Your task to perform on an android device: open app "Microsoft Excel" (install if not already installed) Image 0: 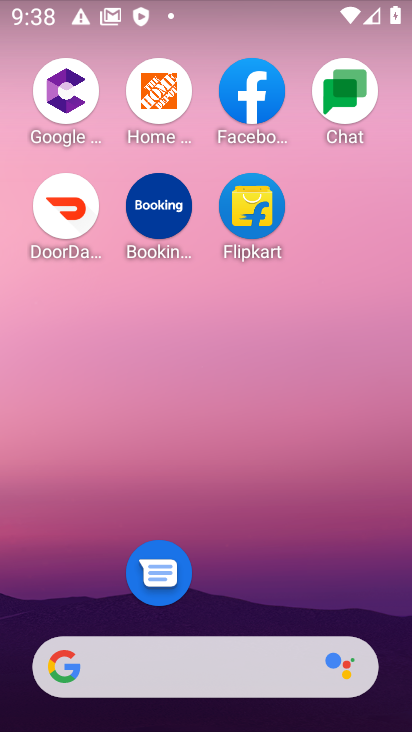
Step 0: drag from (262, 635) to (259, 0)
Your task to perform on an android device: open app "Microsoft Excel" (install if not already installed) Image 1: 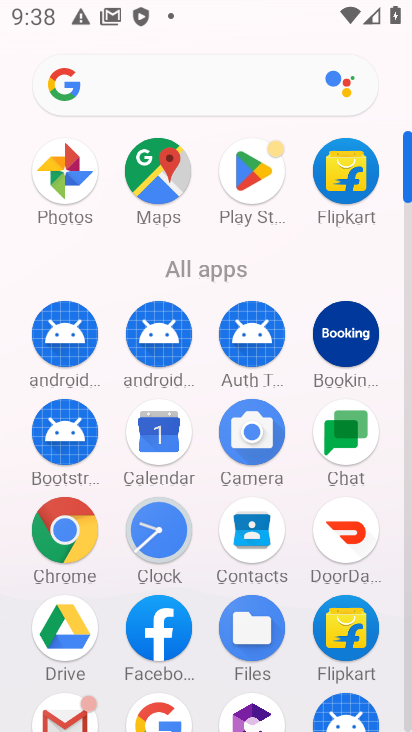
Step 1: click (244, 183)
Your task to perform on an android device: open app "Microsoft Excel" (install if not already installed) Image 2: 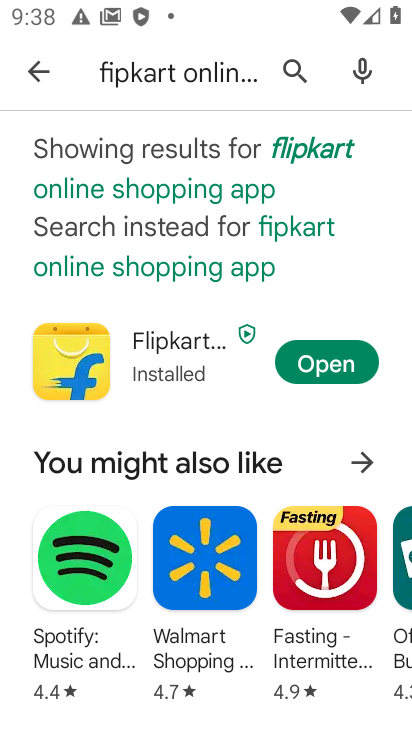
Step 2: click (295, 70)
Your task to perform on an android device: open app "Microsoft Excel" (install if not already installed) Image 3: 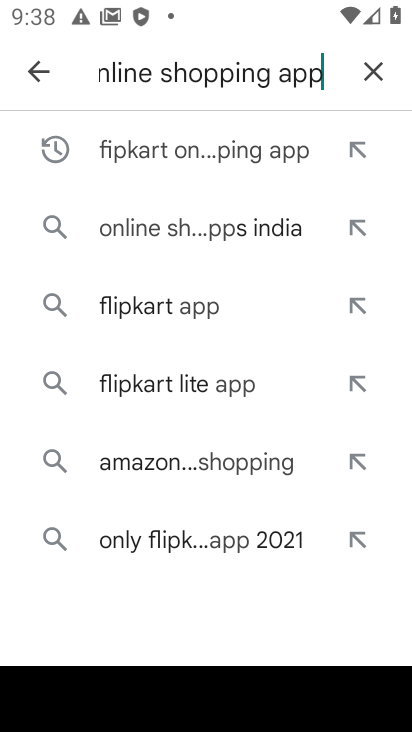
Step 3: click (375, 70)
Your task to perform on an android device: open app "Microsoft Excel" (install if not already installed) Image 4: 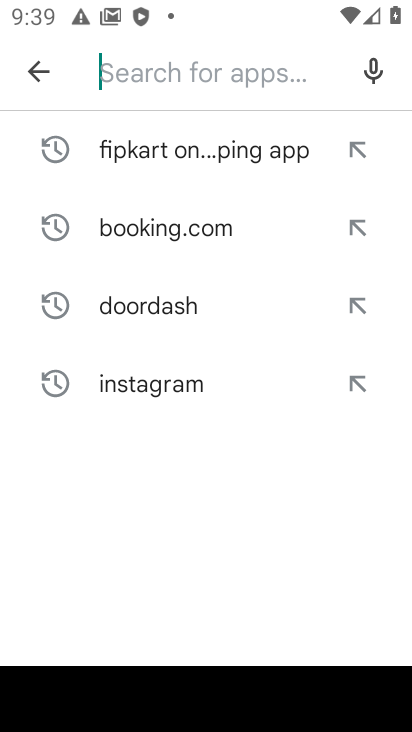
Step 4: type "microsoft excel"
Your task to perform on an android device: open app "Microsoft Excel" (install if not already installed) Image 5: 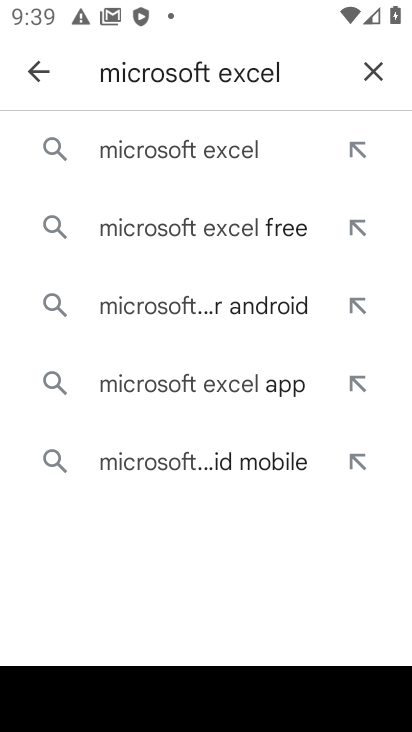
Step 5: click (191, 150)
Your task to perform on an android device: open app "Microsoft Excel" (install if not already installed) Image 6: 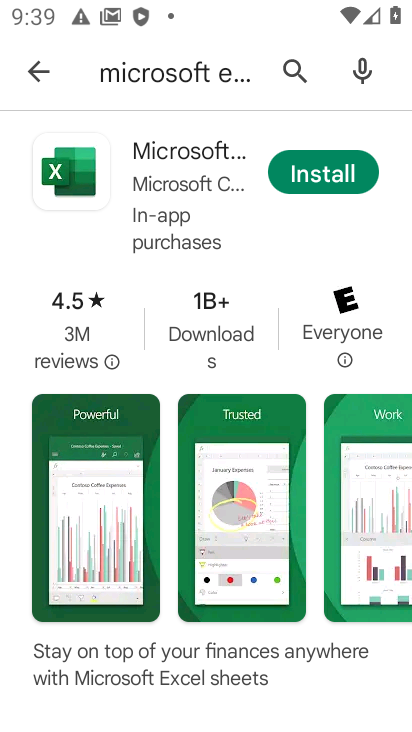
Step 6: click (326, 174)
Your task to perform on an android device: open app "Microsoft Excel" (install if not already installed) Image 7: 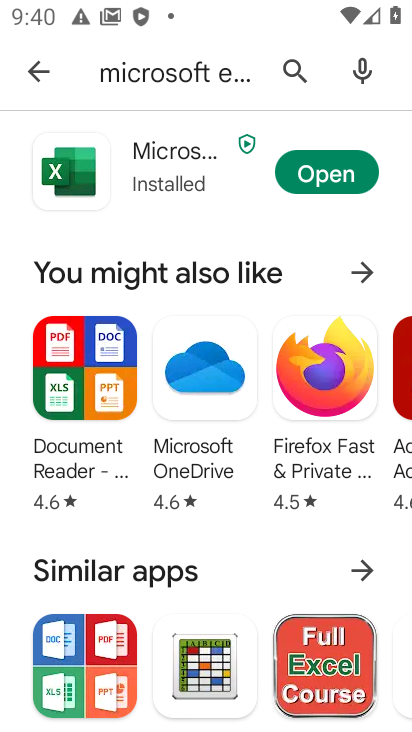
Step 7: click (329, 176)
Your task to perform on an android device: open app "Microsoft Excel" (install if not already installed) Image 8: 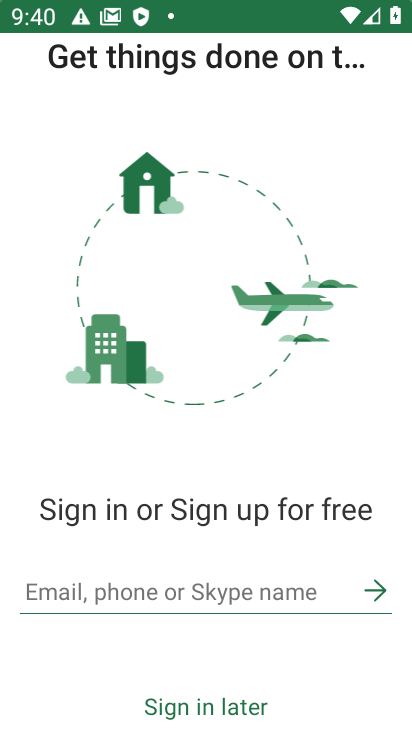
Step 8: task complete